Your task to perform on an android device: turn vacation reply on in the gmail app Image 0: 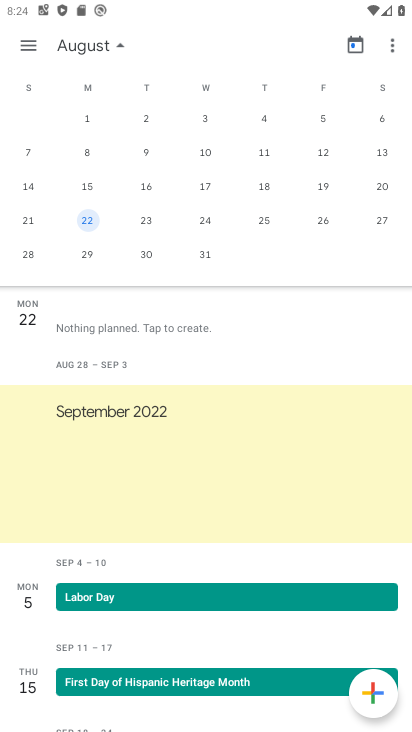
Step 0: press home button
Your task to perform on an android device: turn vacation reply on in the gmail app Image 1: 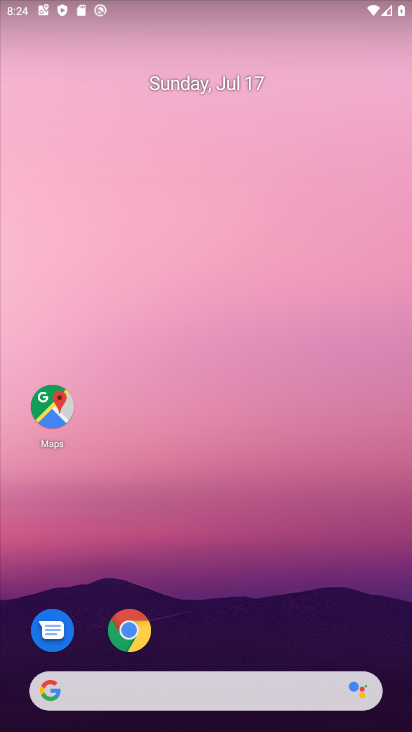
Step 1: drag from (305, 582) to (293, 38)
Your task to perform on an android device: turn vacation reply on in the gmail app Image 2: 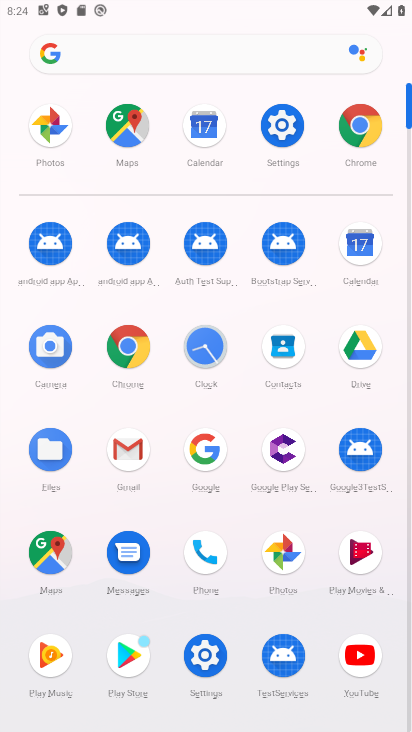
Step 2: click (127, 448)
Your task to perform on an android device: turn vacation reply on in the gmail app Image 3: 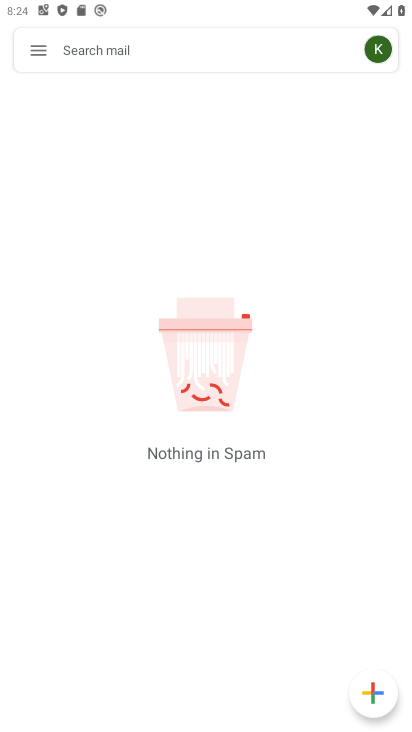
Step 3: click (38, 50)
Your task to perform on an android device: turn vacation reply on in the gmail app Image 4: 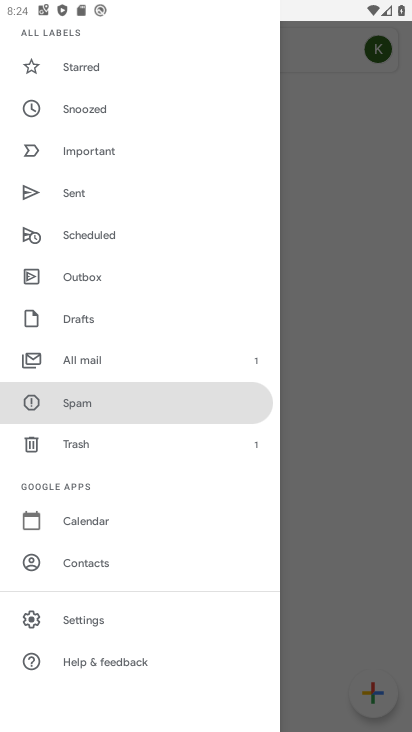
Step 4: drag from (175, 210) to (201, 414)
Your task to perform on an android device: turn vacation reply on in the gmail app Image 5: 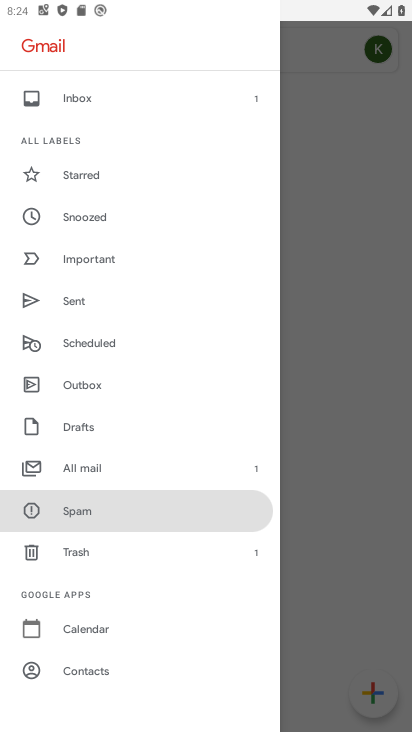
Step 5: drag from (214, 166) to (212, 359)
Your task to perform on an android device: turn vacation reply on in the gmail app Image 6: 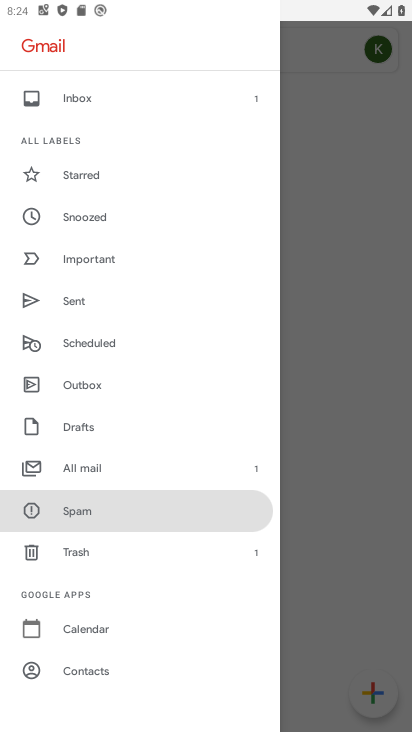
Step 6: drag from (186, 545) to (184, 372)
Your task to perform on an android device: turn vacation reply on in the gmail app Image 7: 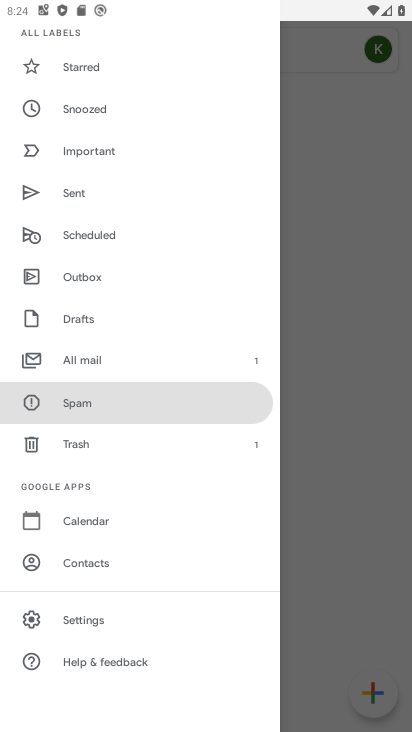
Step 7: click (177, 617)
Your task to perform on an android device: turn vacation reply on in the gmail app Image 8: 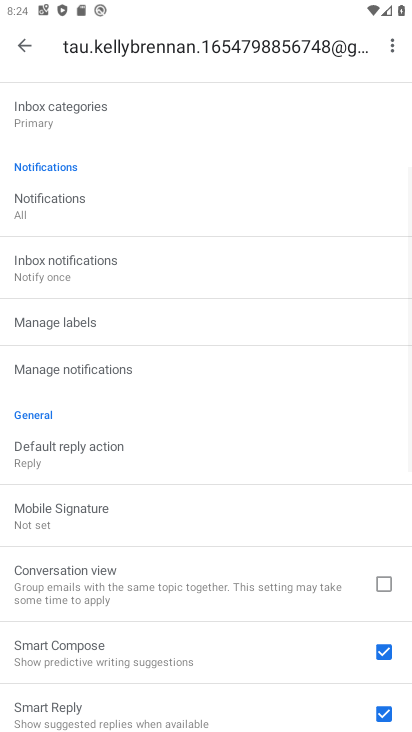
Step 8: drag from (281, 527) to (282, 434)
Your task to perform on an android device: turn vacation reply on in the gmail app Image 9: 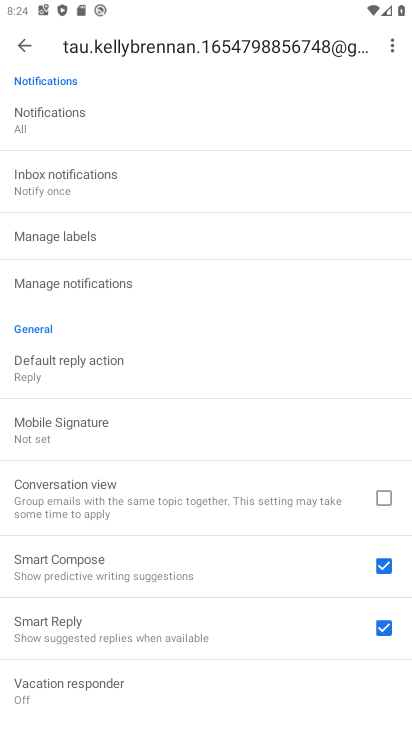
Step 9: drag from (274, 599) to (271, 494)
Your task to perform on an android device: turn vacation reply on in the gmail app Image 10: 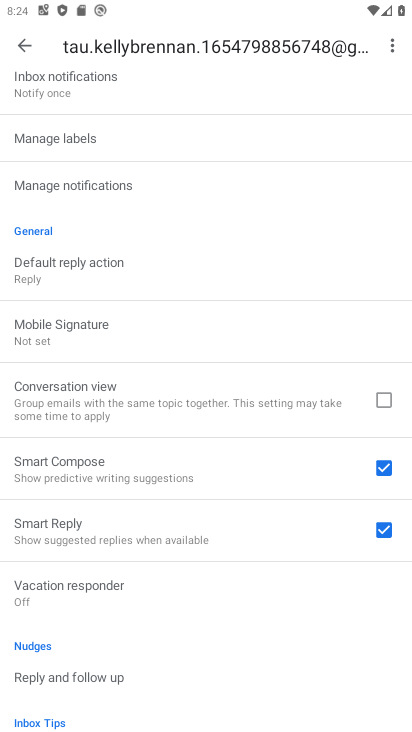
Step 10: drag from (280, 580) to (270, 445)
Your task to perform on an android device: turn vacation reply on in the gmail app Image 11: 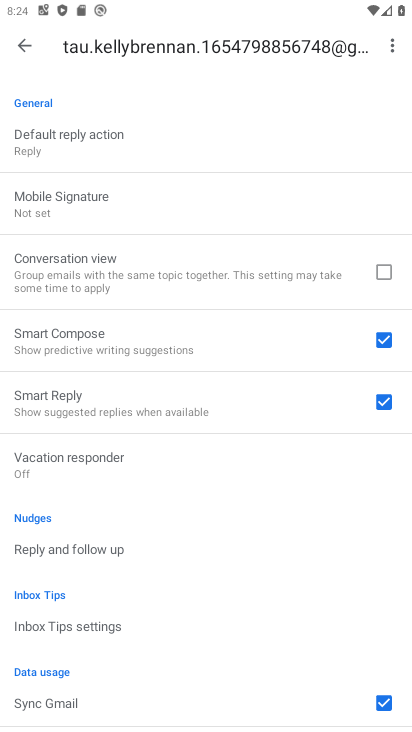
Step 11: drag from (254, 551) to (246, 405)
Your task to perform on an android device: turn vacation reply on in the gmail app Image 12: 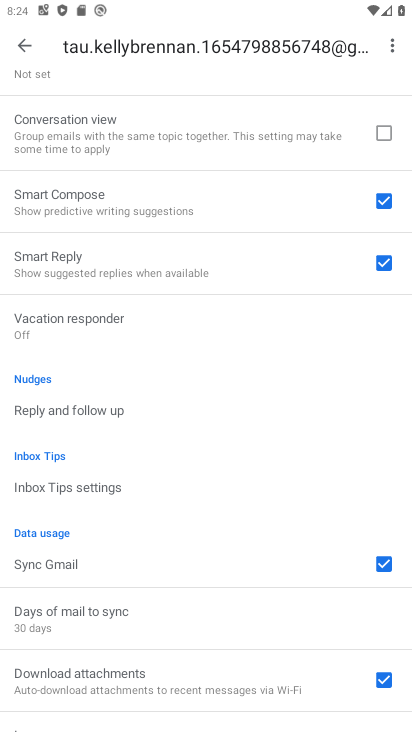
Step 12: click (148, 330)
Your task to perform on an android device: turn vacation reply on in the gmail app Image 13: 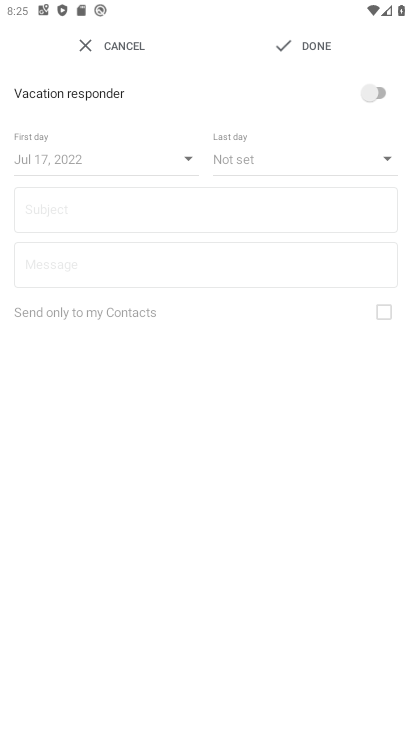
Step 13: click (373, 89)
Your task to perform on an android device: turn vacation reply on in the gmail app Image 14: 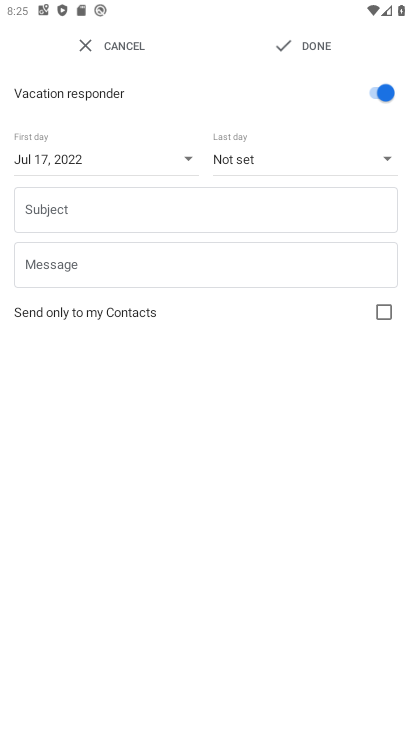
Step 14: task complete